Your task to perform on an android device: turn off sleep mode Image 0: 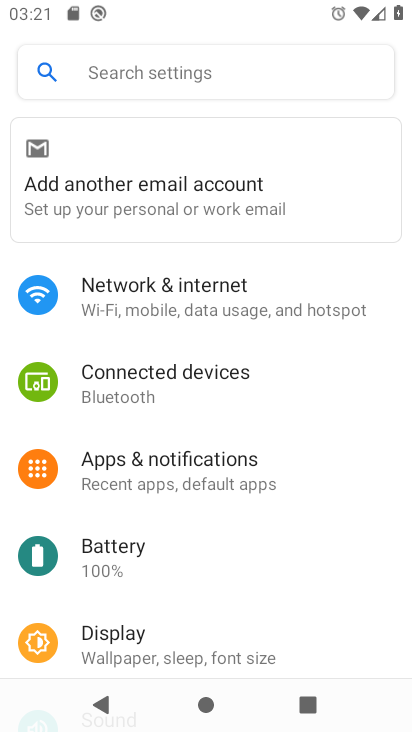
Step 0: drag from (225, 606) to (323, 158)
Your task to perform on an android device: turn off sleep mode Image 1: 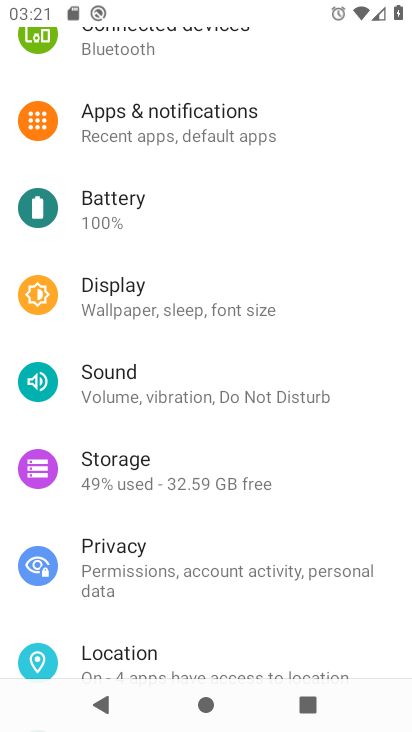
Step 1: task complete